Your task to perform on an android device: Open Youtube and go to the subscriptions tab Image 0: 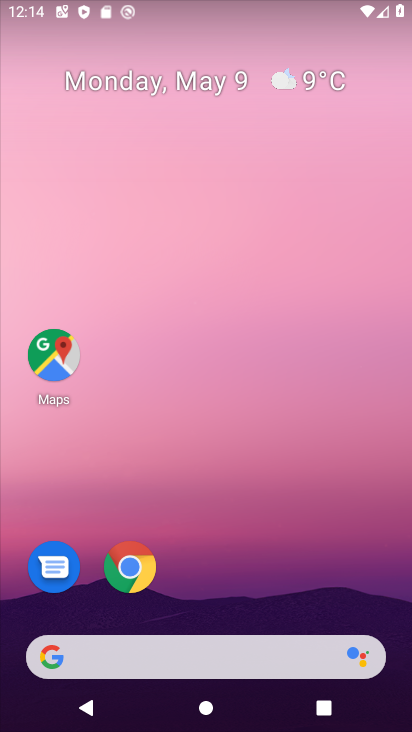
Step 0: drag from (271, 688) to (155, 317)
Your task to perform on an android device: Open Youtube and go to the subscriptions tab Image 1: 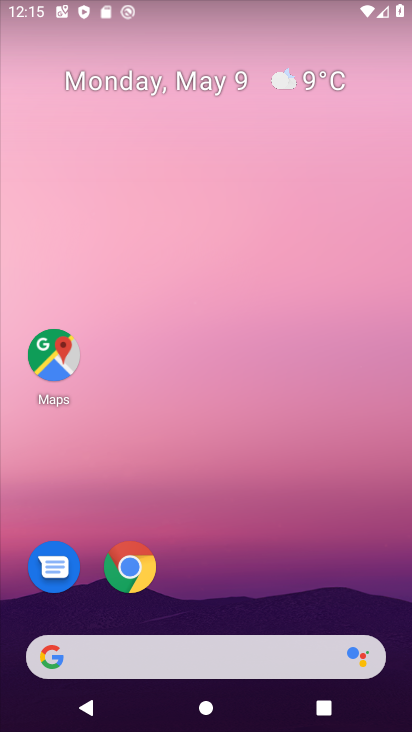
Step 1: drag from (286, 672) to (248, 199)
Your task to perform on an android device: Open Youtube and go to the subscriptions tab Image 2: 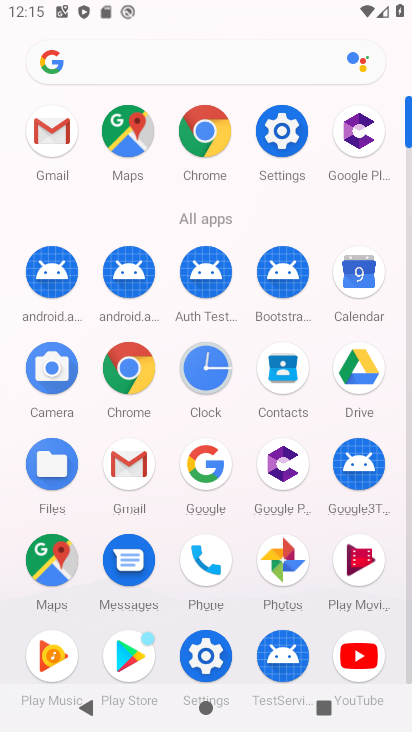
Step 2: click (346, 667)
Your task to perform on an android device: Open Youtube and go to the subscriptions tab Image 3: 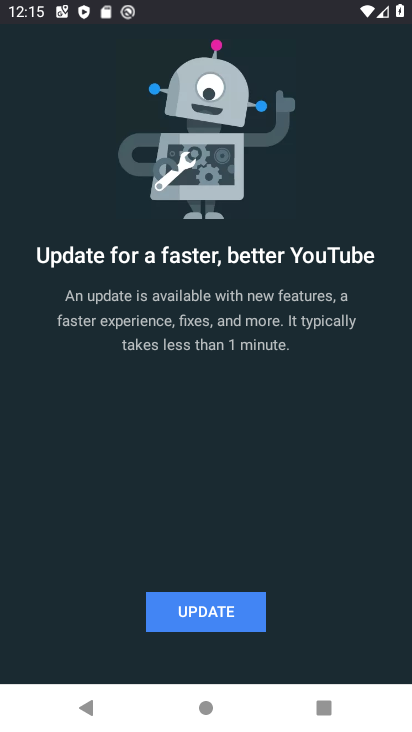
Step 3: click (236, 597)
Your task to perform on an android device: Open Youtube and go to the subscriptions tab Image 4: 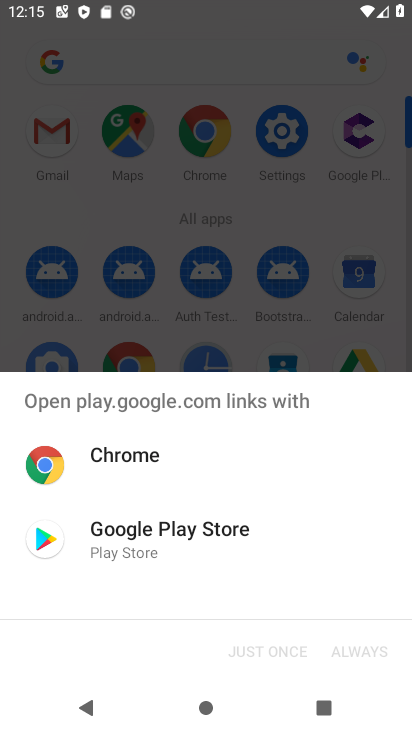
Step 4: click (246, 655)
Your task to perform on an android device: Open Youtube and go to the subscriptions tab Image 5: 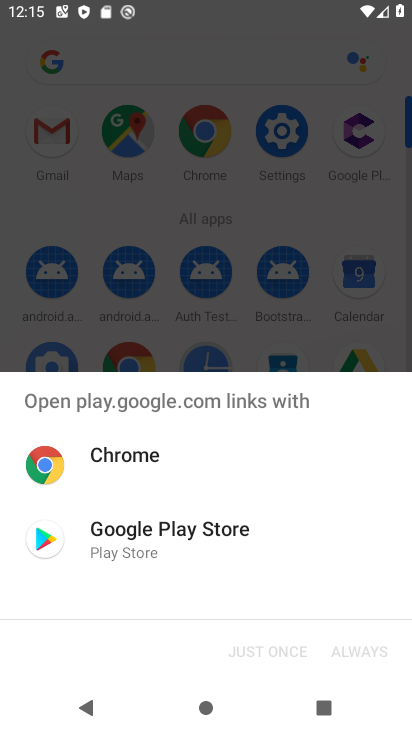
Step 5: click (201, 547)
Your task to perform on an android device: Open Youtube and go to the subscriptions tab Image 6: 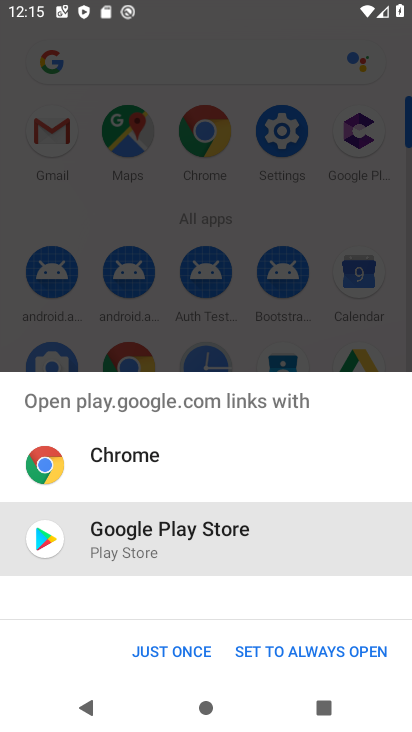
Step 6: click (177, 651)
Your task to perform on an android device: Open Youtube and go to the subscriptions tab Image 7: 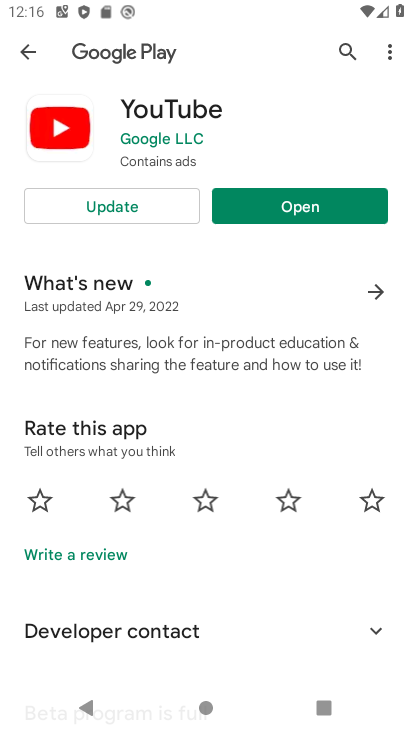
Step 7: click (144, 198)
Your task to perform on an android device: Open Youtube and go to the subscriptions tab Image 8: 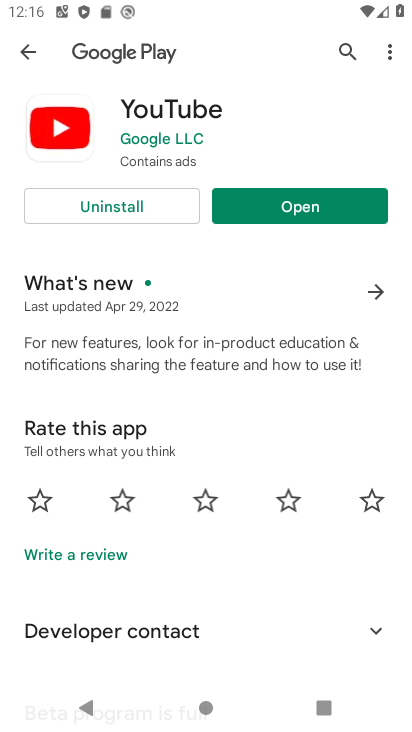
Step 8: click (266, 214)
Your task to perform on an android device: Open Youtube and go to the subscriptions tab Image 9: 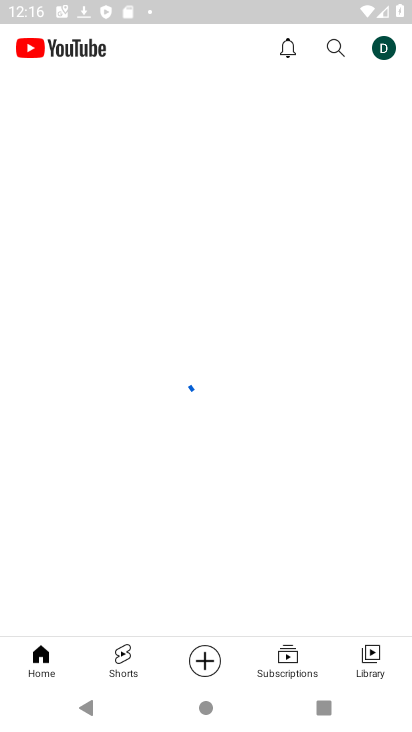
Step 9: task complete